Your task to perform on an android device: remove spam from my inbox in the gmail app Image 0: 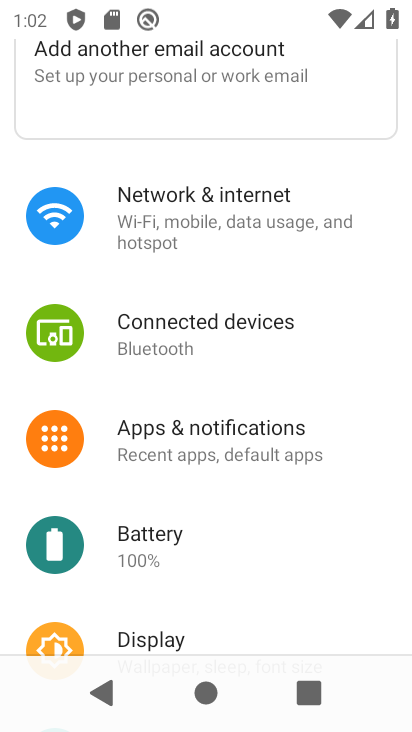
Step 0: press home button
Your task to perform on an android device: remove spam from my inbox in the gmail app Image 1: 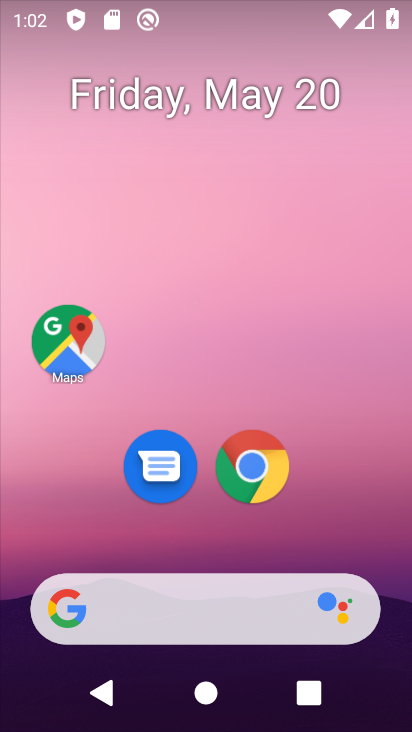
Step 1: drag from (220, 535) to (211, 177)
Your task to perform on an android device: remove spam from my inbox in the gmail app Image 2: 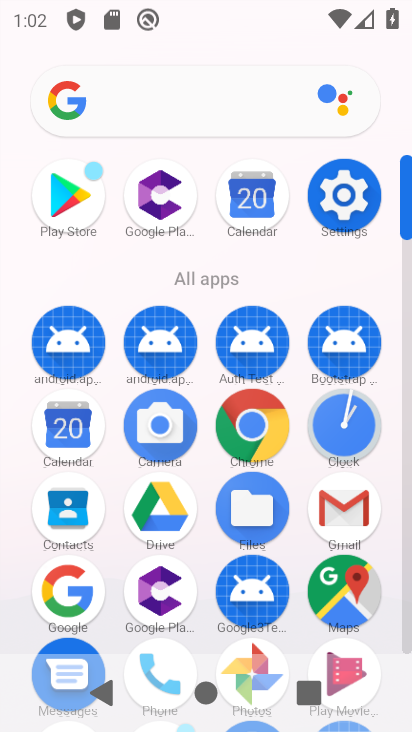
Step 2: click (346, 517)
Your task to perform on an android device: remove spam from my inbox in the gmail app Image 3: 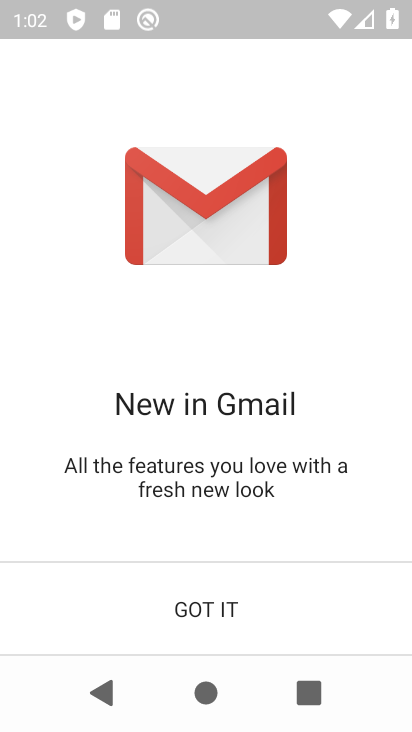
Step 3: click (212, 606)
Your task to perform on an android device: remove spam from my inbox in the gmail app Image 4: 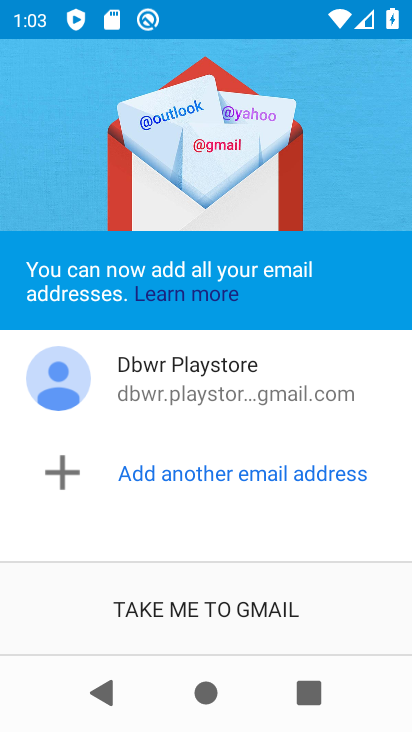
Step 4: click (265, 600)
Your task to perform on an android device: remove spam from my inbox in the gmail app Image 5: 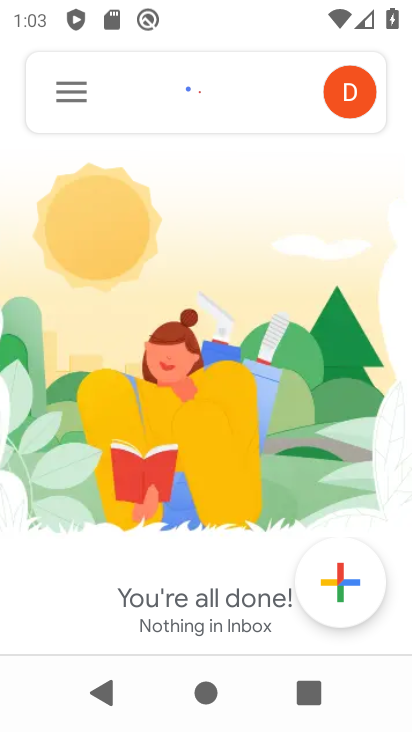
Step 5: click (78, 89)
Your task to perform on an android device: remove spam from my inbox in the gmail app Image 6: 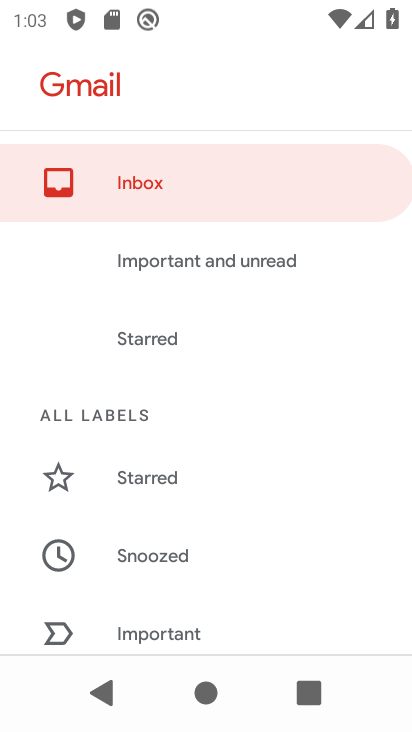
Step 6: drag from (219, 589) to (225, 309)
Your task to perform on an android device: remove spam from my inbox in the gmail app Image 7: 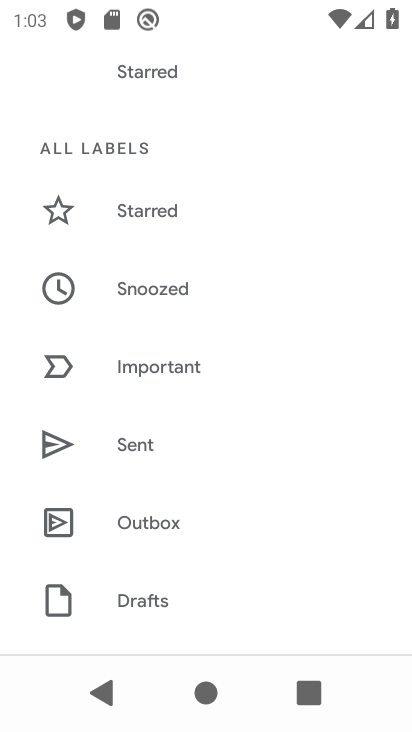
Step 7: drag from (176, 499) to (193, 190)
Your task to perform on an android device: remove spam from my inbox in the gmail app Image 8: 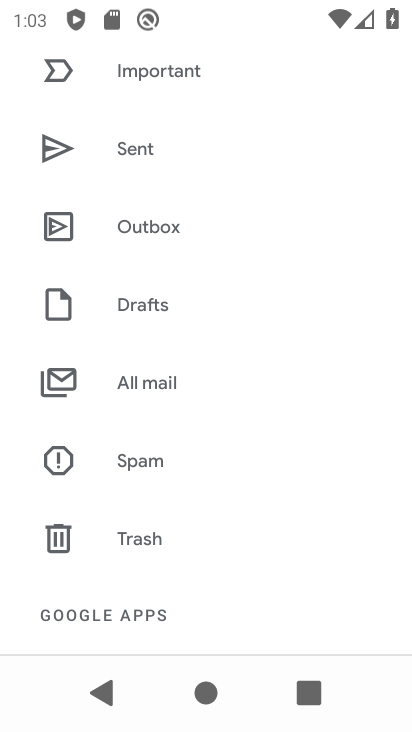
Step 8: click (157, 459)
Your task to perform on an android device: remove spam from my inbox in the gmail app Image 9: 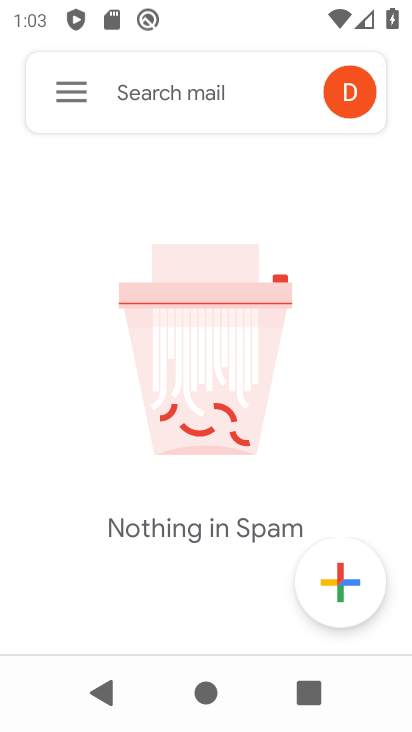
Step 9: task complete